Your task to perform on an android device: turn off notifications in google photos Image 0: 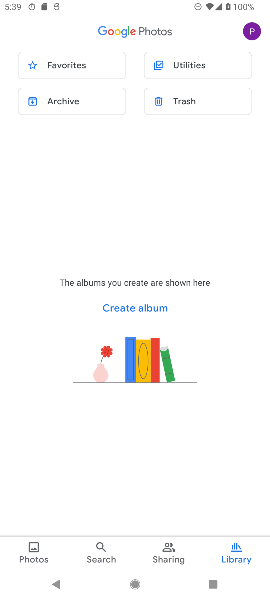
Step 0: press back button
Your task to perform on an android device: turn off notifications in google photos Image 1: 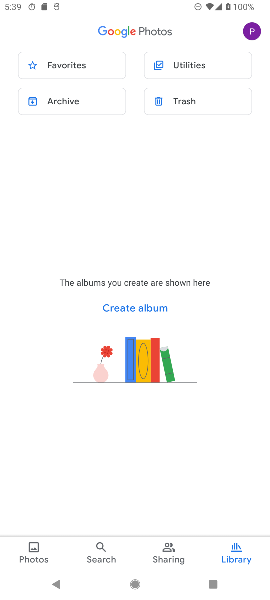
Step 1: press back button
Your task to perform on an android device: turn off notifications in google photos Image 2: 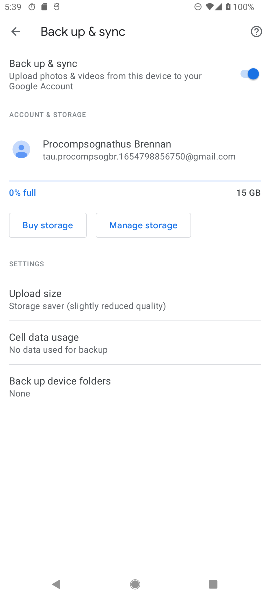
Step 2: press back button
Your task to perform on an android device: turn off notifications in google photos Image 3: 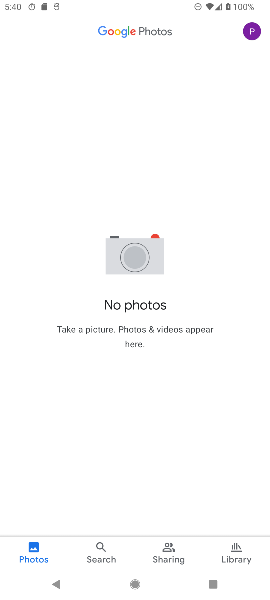
Step 3: click (256, 28)
Your task to perform on an android device: turn off notifications in google photos Image 4: 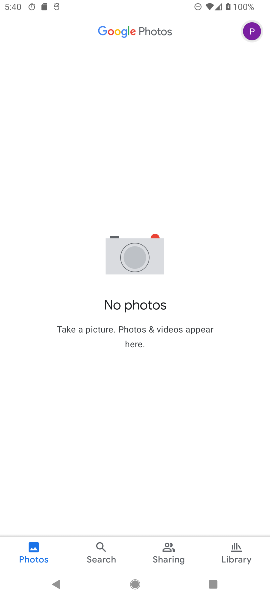
Step 4: click (254, 31)
Your task to perform on an android device: turn off notifications in google photos Image 5: 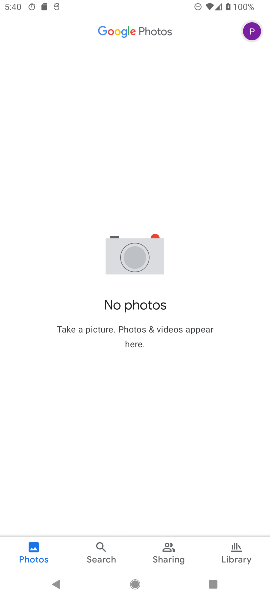
Step 5: click (255, 32)
Your task to perform on an android device: turn off notifications in google photos Image 6: 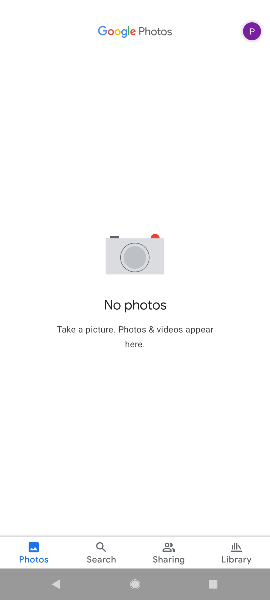
Step 6: click (255, 32)
Your task to perform on an android device: turn off notifications in google photos Image 7: 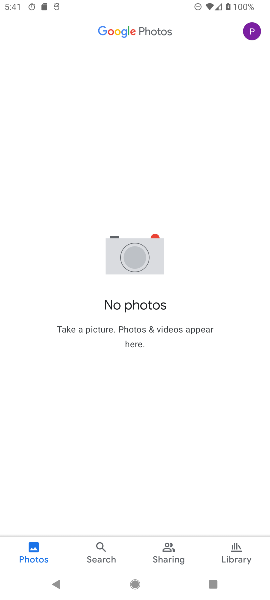
Step 7: click (35, 556)
Your task to perform on an android device: turn off notifications in google photos Image 8: 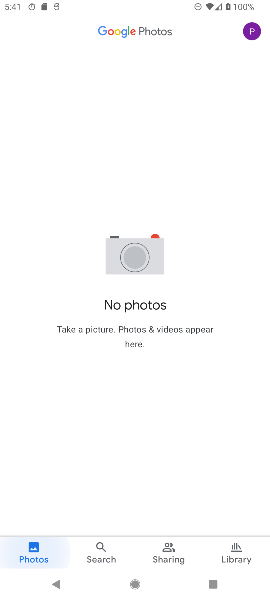
Step 8: click (34, 555)
Your task to perform on an android device: turn off notifications in google photos Image 9: 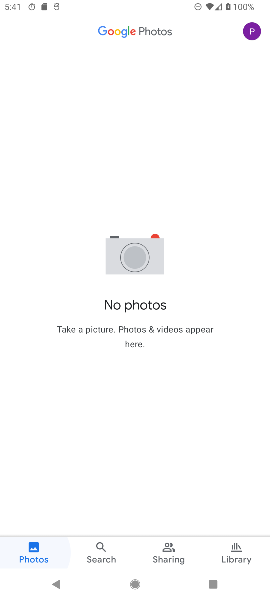
Step 9: click (243, 38)
Your task to perform on an android device: turn off notifications in google photos Image 10: 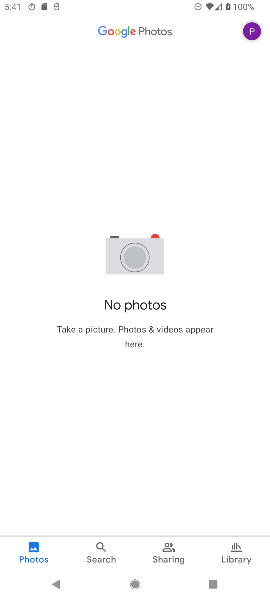
Step 10: drag from (253, 28) to (65, 341)
Your task to perform on an android device: turn off notifications in google photos Image 11: 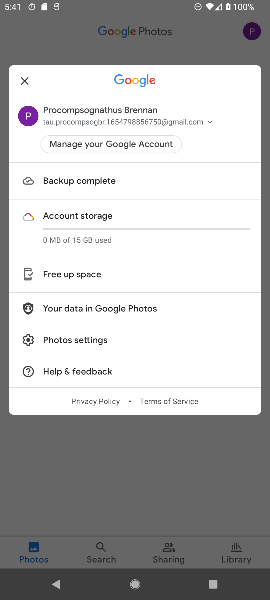
Step 11: click (66, 342)
Your task to perform on an android device: turn off notifications in google photos Image 12: 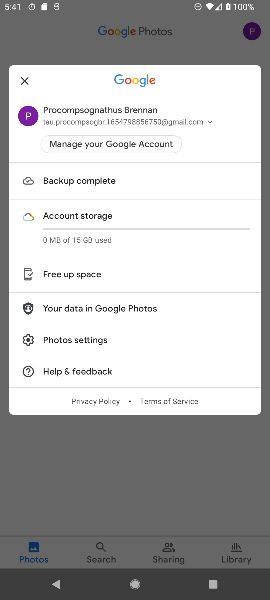
Step 12: click (66, 343)
Your task to perform on an android device: turn off notifications in google photos Image 13: 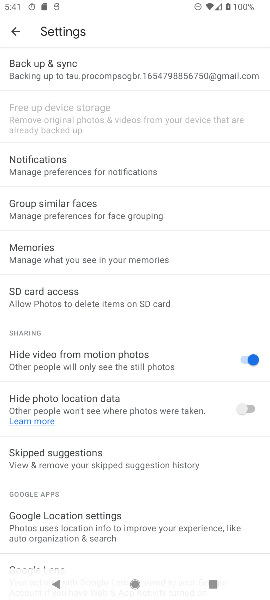
Step 13: click (40, 152)
Your task to perform on an android device: turn off notifications in google photos Image 14: 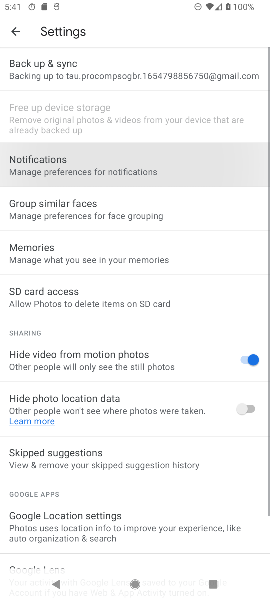
Step 14: click (45, 167)
Your task to perform on an android device: turn off notifications in google photos Image 15: 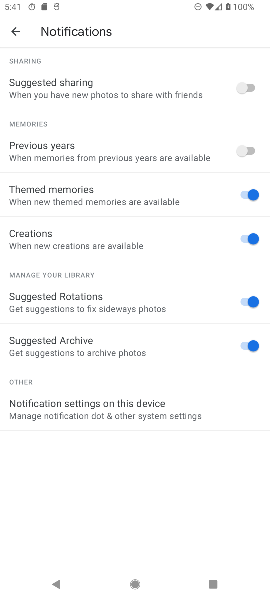
Step 15: drag from (54, 116) to (99, 344)
Your task to perform on an android device: turn off notifications in google photos Image 16: 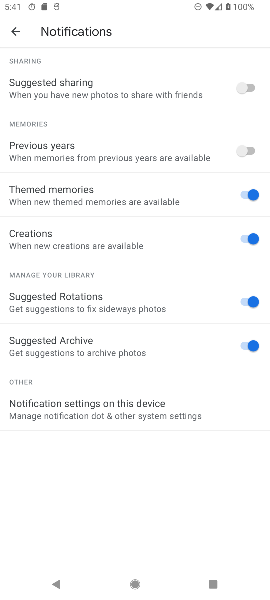
Step 16: drag from (66, 166) to (99, 369)
Your task to perform on an android device: turn off notifications in google photos Image 17: 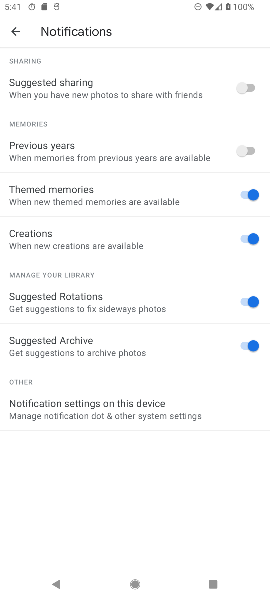
Step 17: drag from (68, 171) to (103, 305)
Your task to perform on an android device: turn off notifications in google photos Image 18: 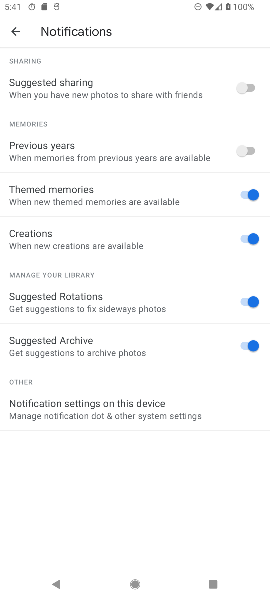
Step 18: drag from (77, 174) to (82, 236)
Your task to perform on an android device: turn off notifications in google photos Image 19: 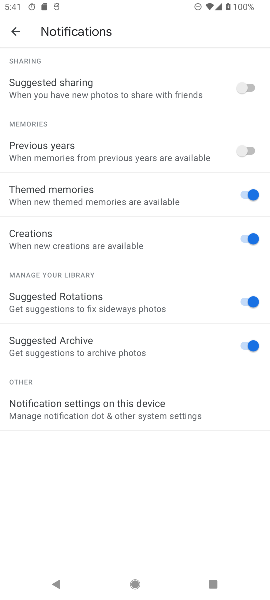
Step 19: drag from (77, 305) to (53, 118)
Your task to perform on an android device: turn off notifications in google photos Image 20: 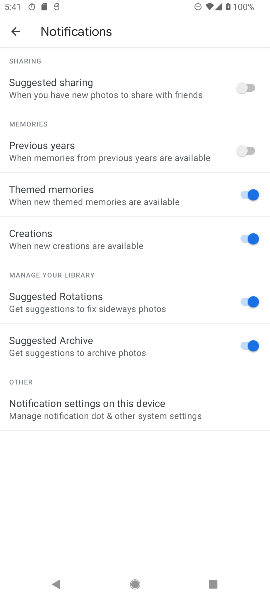
Step 20: drag from (91, 349) to (101, 102)
Your task to perform on an android device: turn off notifications in google photos Image 21: 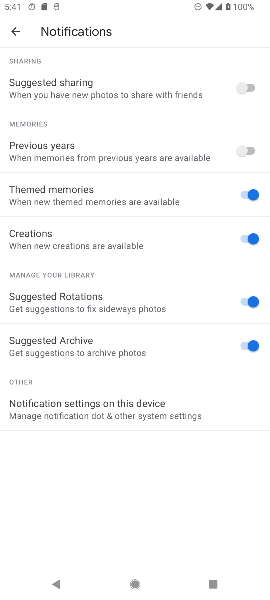
Step 21: drag from (166, 354) to (136, 176)
Your task to perform on an android device: turn off notifications in google photos Image 22: 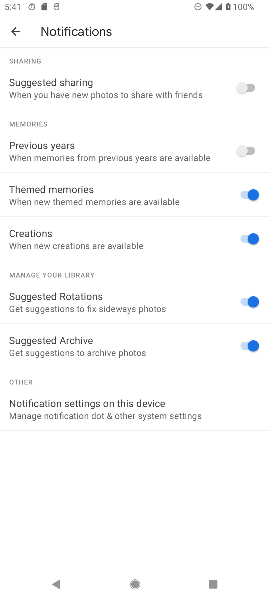
Step 22: drag from (127, 368) to (86, 174)
Your task to perform on an android device: turn off notifications in google photos Image 23: 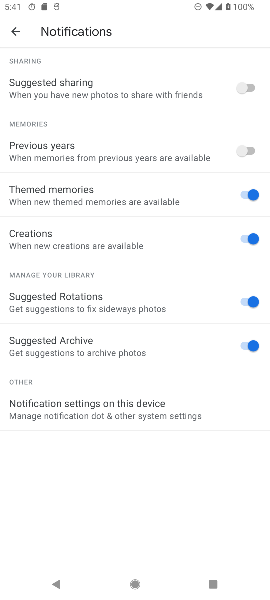
Step 23: drag from (127, 363) to (115, 76)
Your task to perform on an android device: turn off notifications in google photos Image 24: 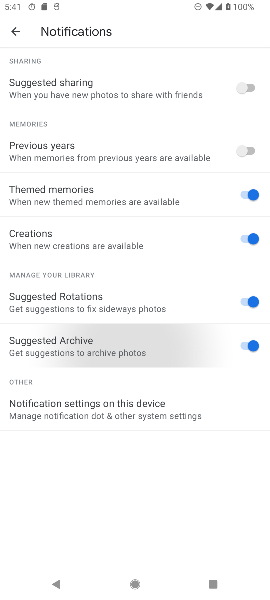
Step 24: drag from (144, 352) to (165, 151)
Your task to perform on an android device: turn off notifications in google photos Image 25: 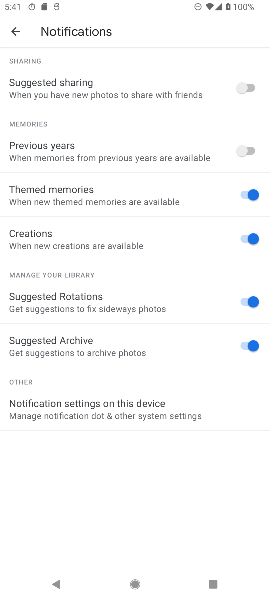
Step 25: click (250, 343)
Your task to perform on an android device: turn off notifications in google photos Image 26: 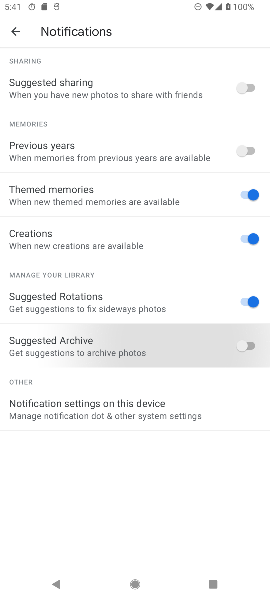
Step 26: click (254, 306)
Your task to perform on an android device: turn off notifications in google photos Image 27: 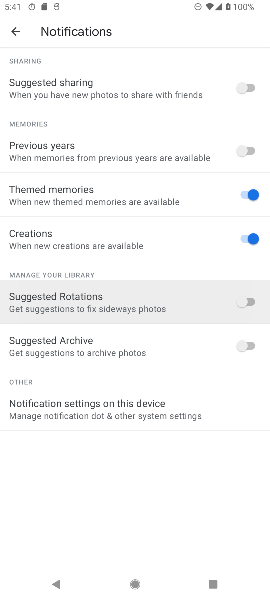
Step 27: click (251, 230)
Your task to perform on an android device: turn off notifications in google photos Image 28: 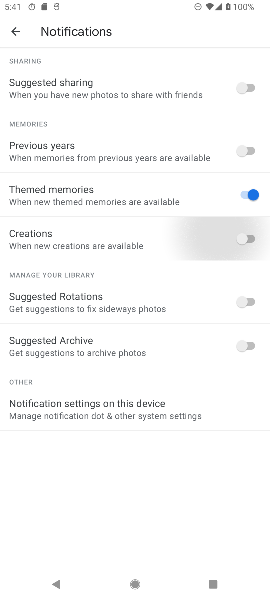
Step 28: click (249, 191)
Your task to perform on an android device: turn off notifications in google photos Image 29: 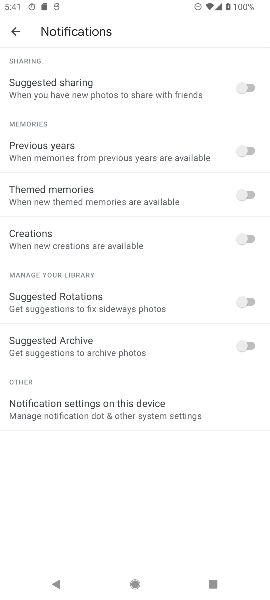
Step 29: task complete